Your task to perform on an android device: Go to calendar. Show me events next week Image 0: 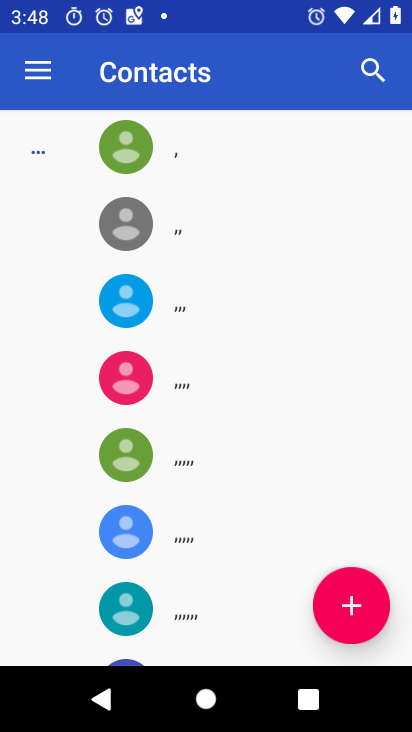
Step 0: press home button
Your task to perform on an android device: Go to calendar. Show me events next week Image 1: 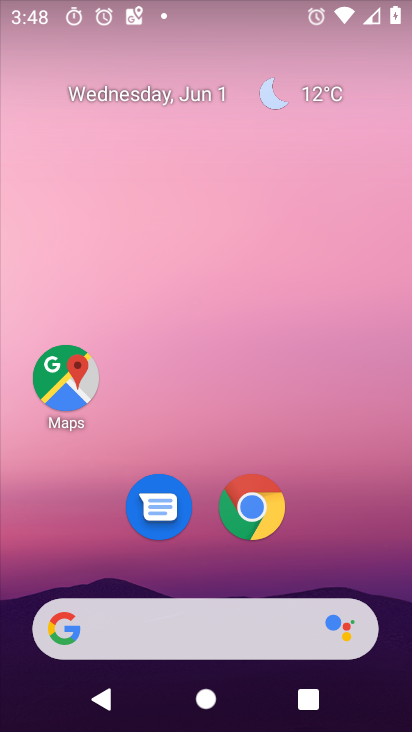
Step 1: drag from (329, 519) to (357, 28)
Your task to perform on an android device: Go to calendar. Show me events next week Image 2: 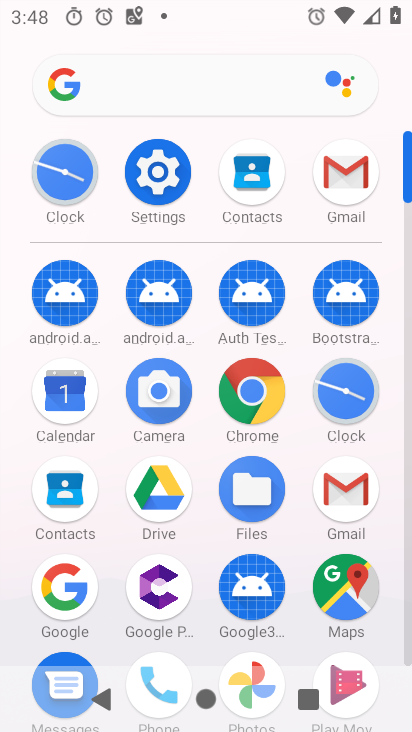
Step 2: click (62, 395)
Your task to perform on an android device: Go to calendar. Show me events next week Image 3: 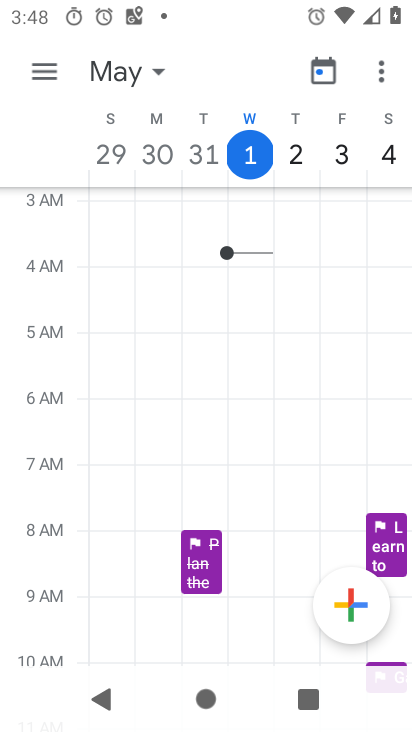
Step 3: task complete